Your task to perform on an android device: turn on the 24-hour format for clock Image 0: 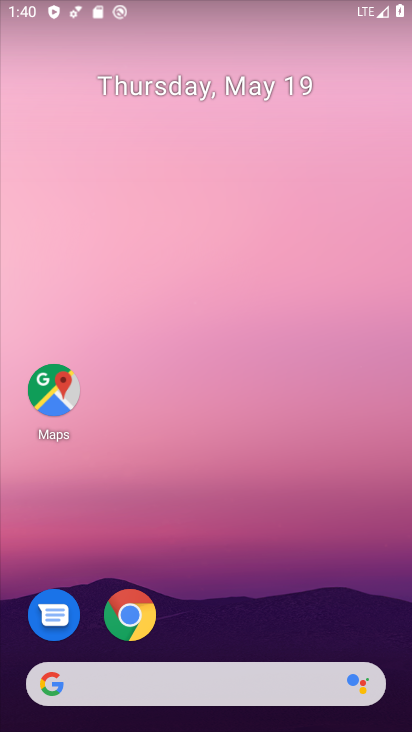
Step 0: drag from (248, 502) to (258, 261)
Your task to perform on an android device: turn on the 24-hour format for clock Image 1: 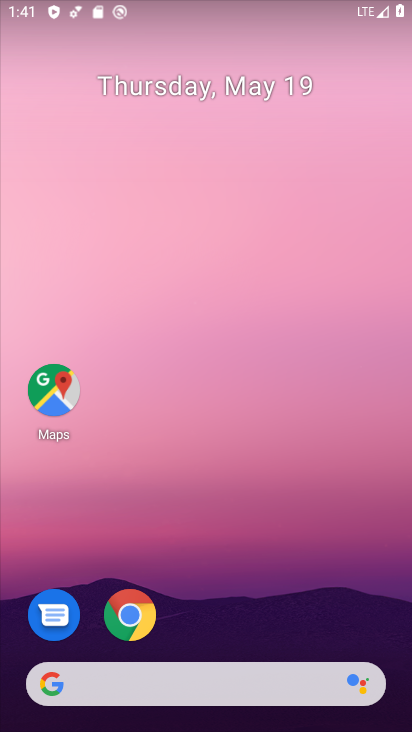
Step 1: drag from (241, 614) to (232, 253)
Your task to perform on an android device: turn on the 24-hour format for clock Image 2: 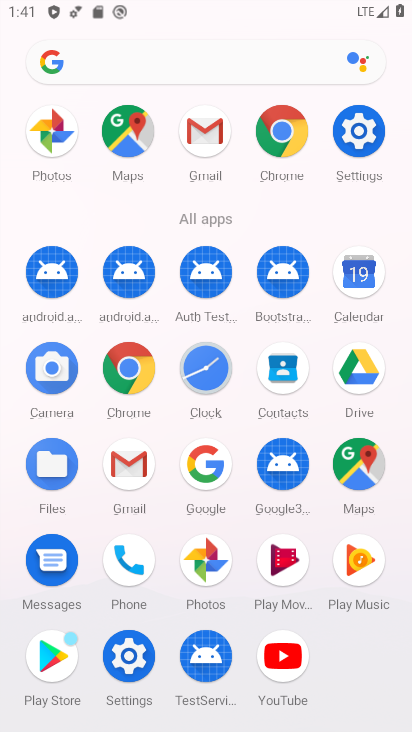
Step 2: click (363, 270)
Your task to perform on an android device: turn on the 24-hour format for clock Image 3: 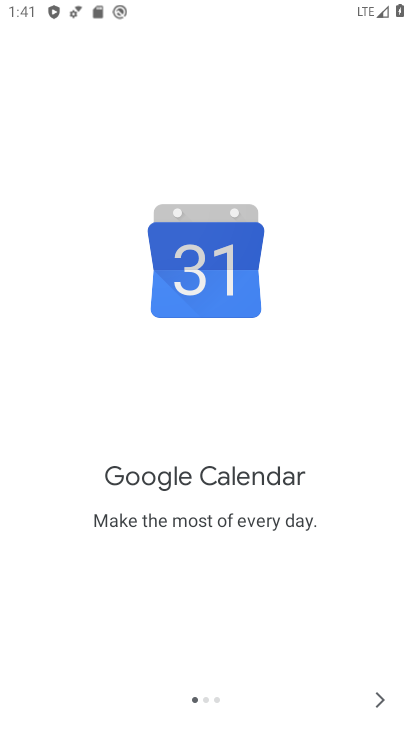
Step 3: click (362, 687)
Your task to perform on an android device: turn on the 24-hour format for clock Image 4: 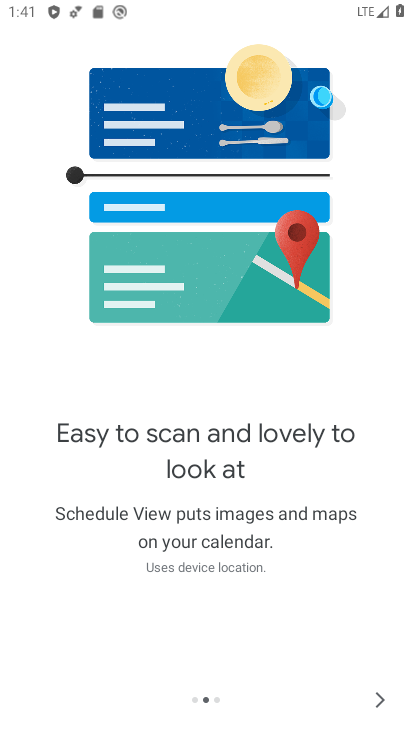
Step 4: click (371, 701)
Your task to perform on an android device: turn on the 24-hour format for clock Image 5: 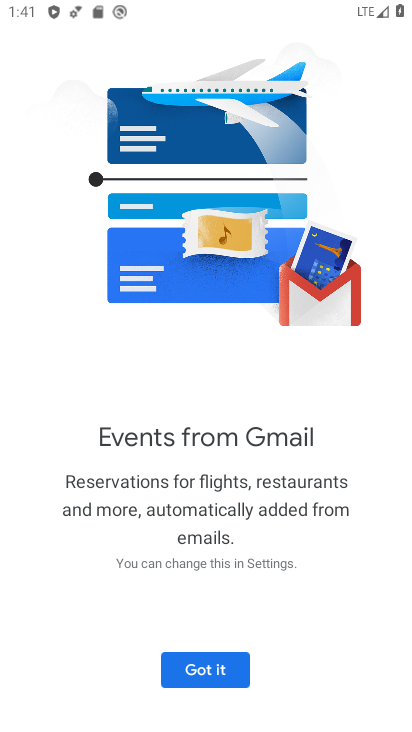
Step 5: click (368, 694)
Your task to perform on an android device: turn on the 24-hour format for clock Image 6: 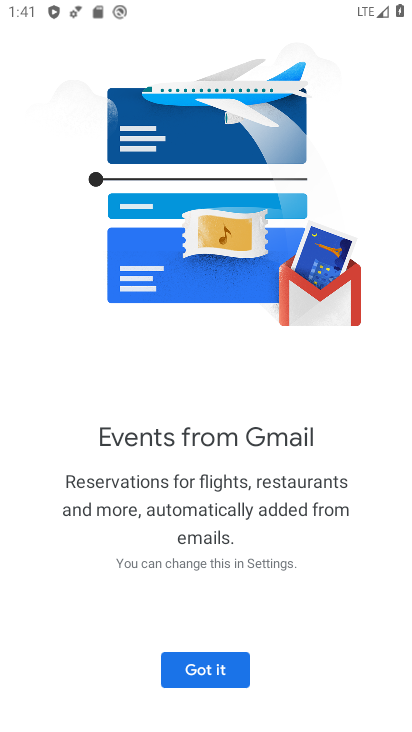
Step 6: click (237, 658)
Your task to perform on an android device: turn on the 24-hour format for clock Image 7: 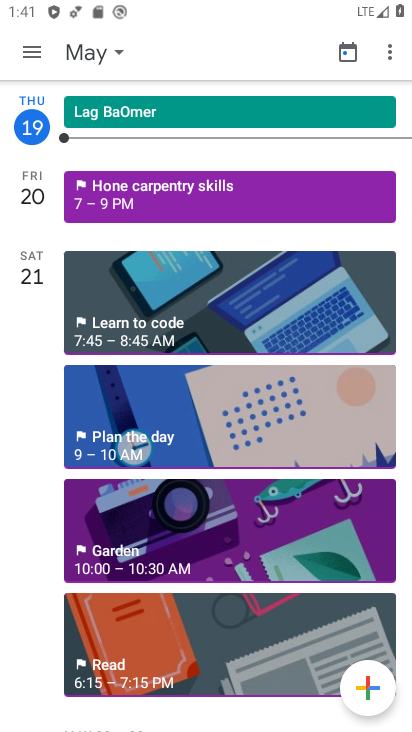
Step 7: click (390, 42)
Your task to perform on an android device: turn on the 24-hour format for clock Image 8: 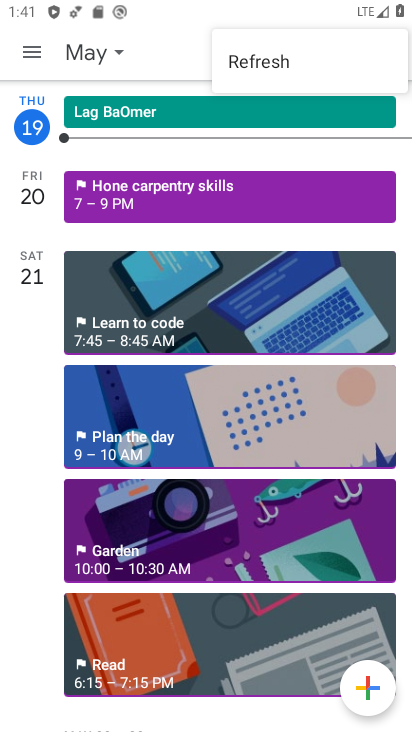
Step 8: click (28, 52)
Your task to perform on an android device: turn on the 24-hour format for clock Image 9: 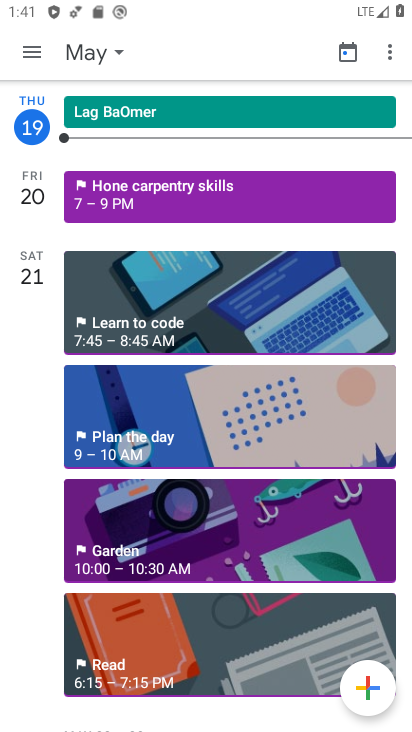
Step 9: click (25, 53)
Your task to perform on an android device: turn on the 24-hour format for clock Image 10: 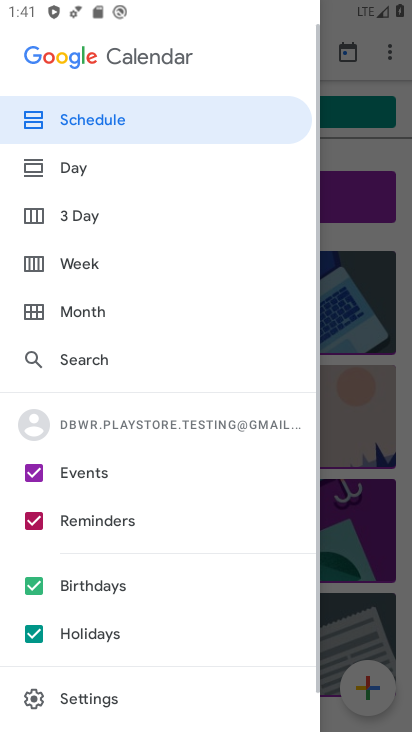
Step 10: click (110, 710)
Your task to perform on an android device: turn on the 24-hour format for clock Image 11: 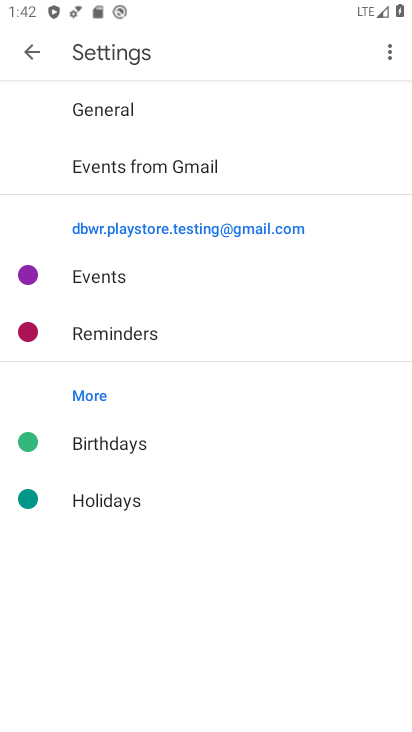
Step 11: click (34, 51)
Your task to perform on an android device: turn on the 24-hour format for clock Image 12: 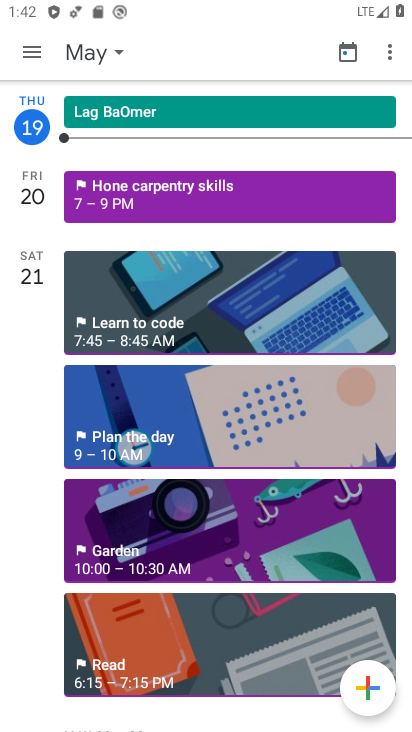
Step 12: click (40, 49)
Your task to perform on an android device: turn on the 24-hour format for clock Image 13: 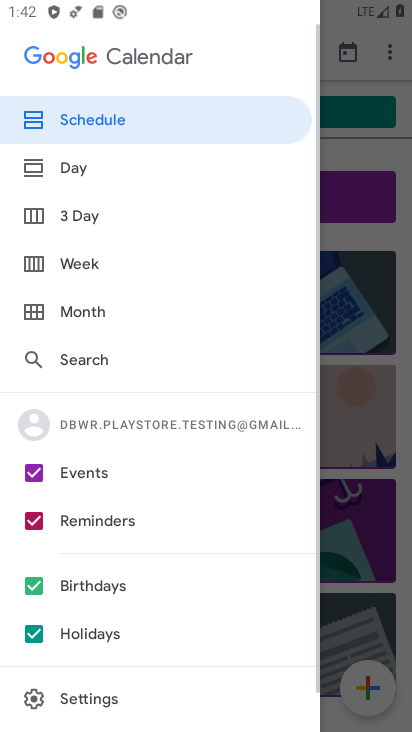
Step 13: drag from (119, 632) to (165, 401)
Your task to perform on an android device: turn on the 24-hour format for clock Image 14: 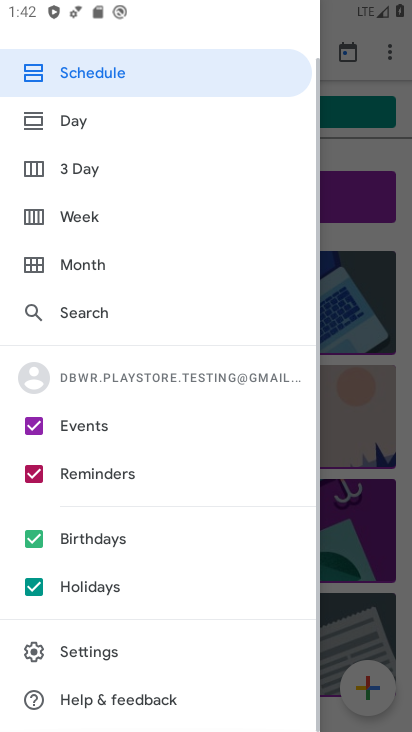
Step 14: click (110, 660)
Your task to perform on an android device: turn on the 24-hour format for clock Image 15: 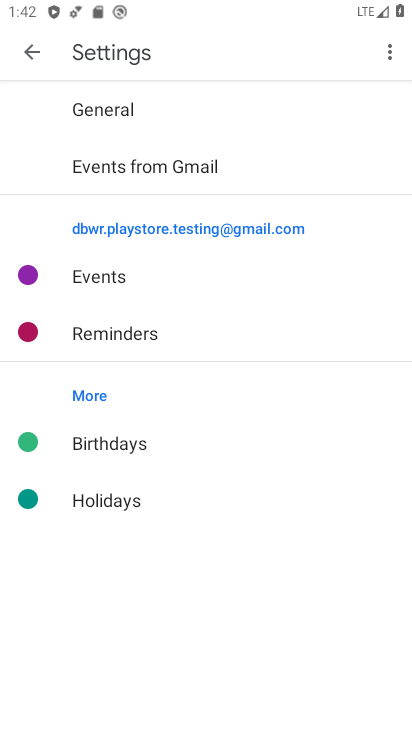
Step 15: drag from (137, 177) to (129, 632)
Your task to perform on an android device: turn on the 24-hour format for clock Image 16: 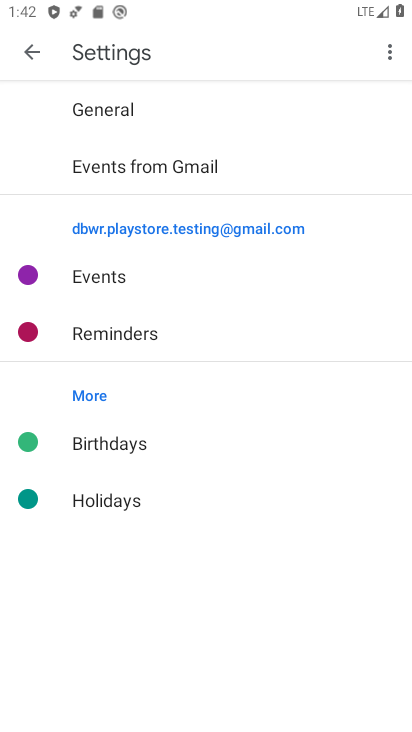
Step 16: click (33, 42)
Your task to perform on an android device: turn on the 24-hour format for clock Image 17: 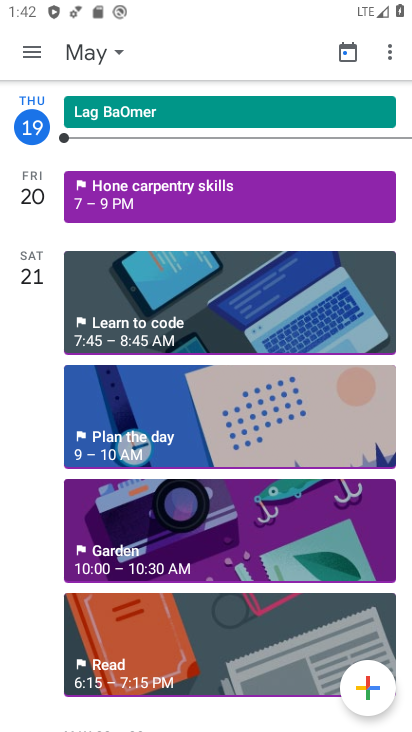
Step 17: press home button
Your task to perform on an android device: turn on the 24-hour format for clock Image 18: 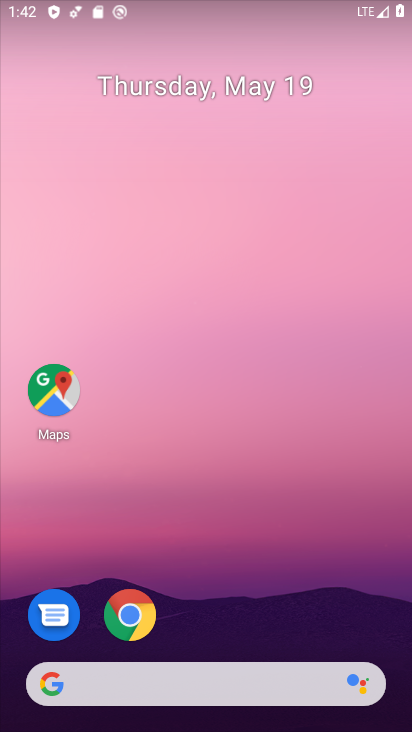
Step 18: drag from (289, 525) to (301, 271)
Your task to perform on an android device: turn on the 24-hour format for clock Image 19: 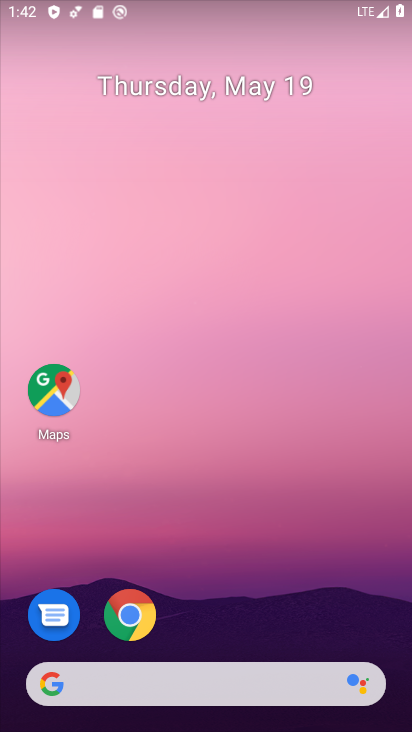
Step 19: drag from (250, 611) to (261, 261)
Your task to perform on an android device: turn on the 24-hour format for clock Image 20: 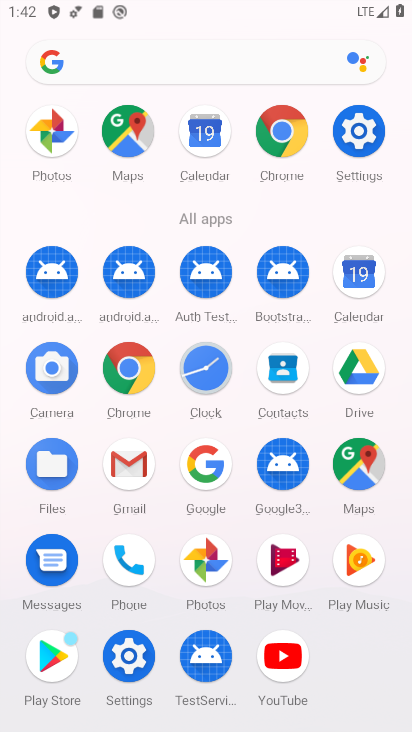
Step 20: click (190, 368)
Your task to perform on an android device: turn on the 24-hour format for clock Image 21: 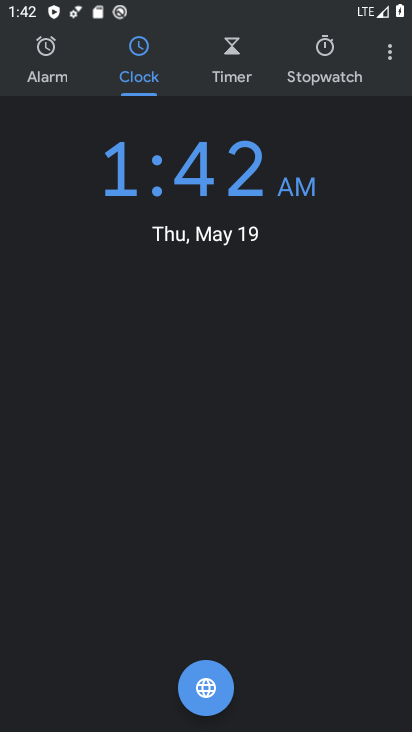
Step 21: click (381, 59)
Your task to perform on an android device: turn on the 24-hour format for clock Image 22: 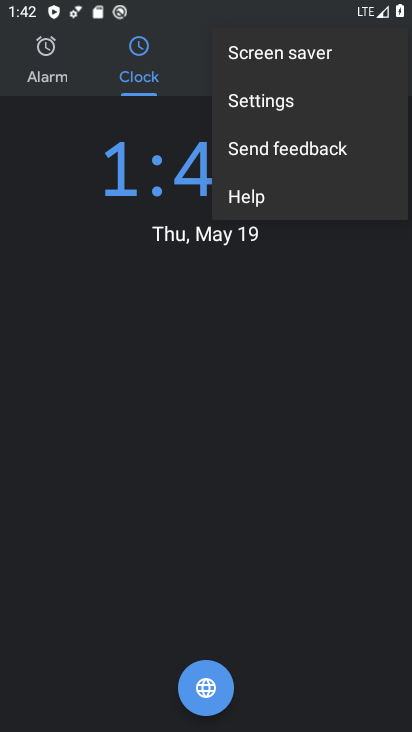
Step 22: click (286, 102)
Your task to perform on an android device: turn on the 24-hour format for clock Image 23: 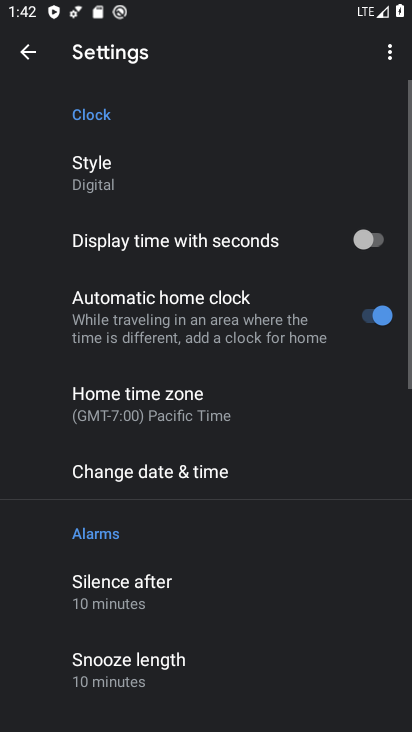
Step 23: drag from (218, 481) to (243, 225)
Your task to perform on an android device: turn on the 24-hour format for clock Image 24: 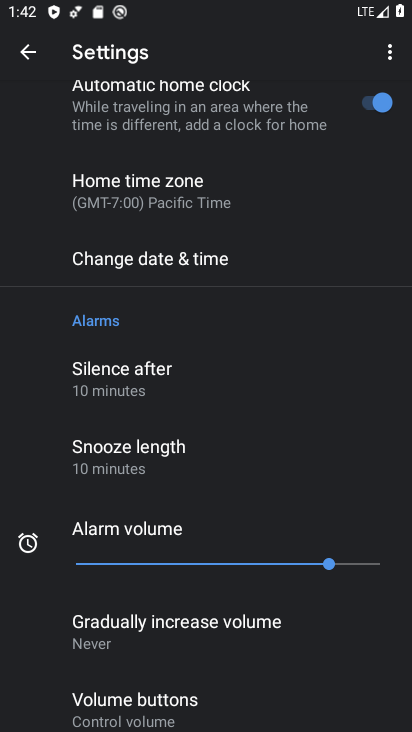
Step 24: drag from (257, 551) to (277, 320)
Your task to perform on an android device: turn on the 24-hour format for clock Image 25: 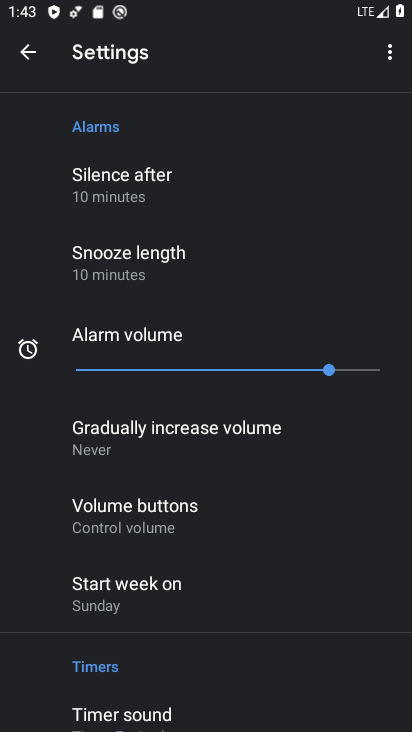
Step 25: drag from (174, 212) to (174, 323)
Your task to perform on an android device: turn on the 24-hour format for clock Image 26: 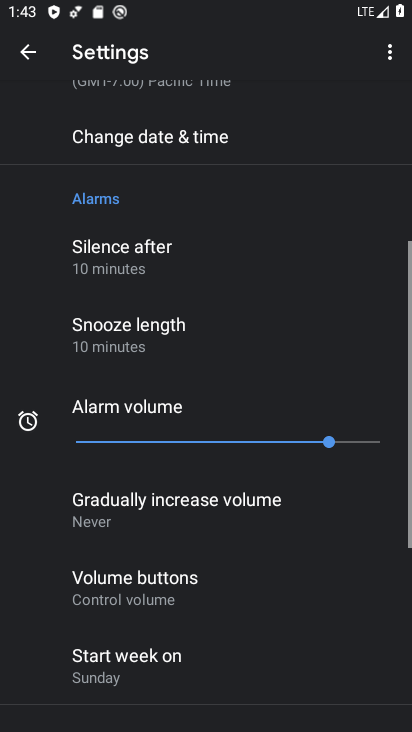
Step 26: drag from (169, 343) to (155, 422)
Your task to perform on an android device: turn on the 24-hour format for clock Image 27: 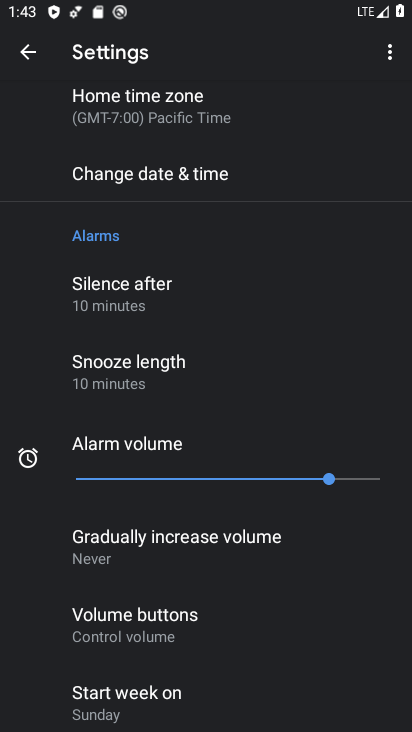
Step 27: click (138, 157)
Your task to perform on an android device: turn on the 24-hour format for clock Image 28: 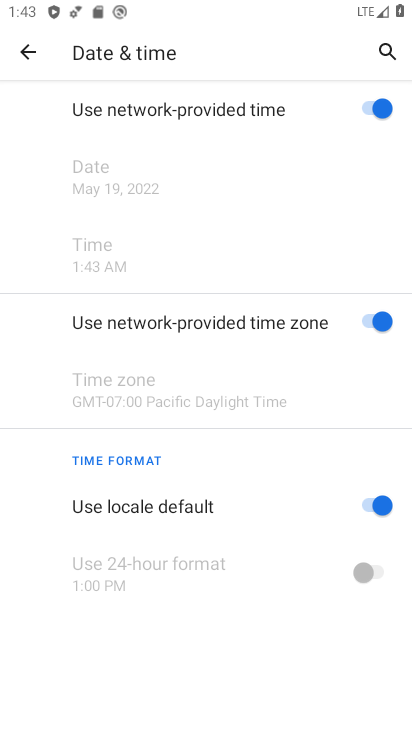
Step 28: click (387, 506)
Your task to perform on an android device: turn on the 24-hour format for clock Image 29: 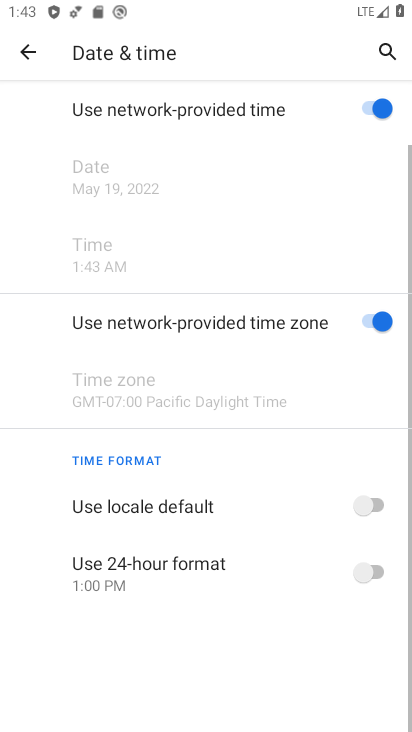
Step 29: click (380, 567)
Your task to perform on an android device: turn on the 24-hour format for clock Image 30: 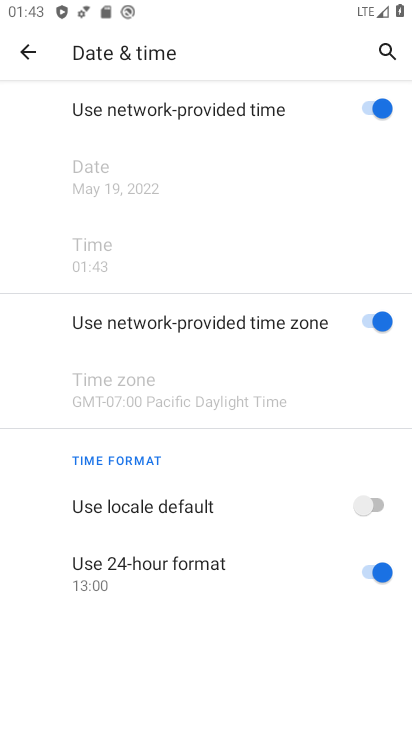
Step 30: task complete